Your task to perform on an android device: turn on improve location accuracy Image 0: 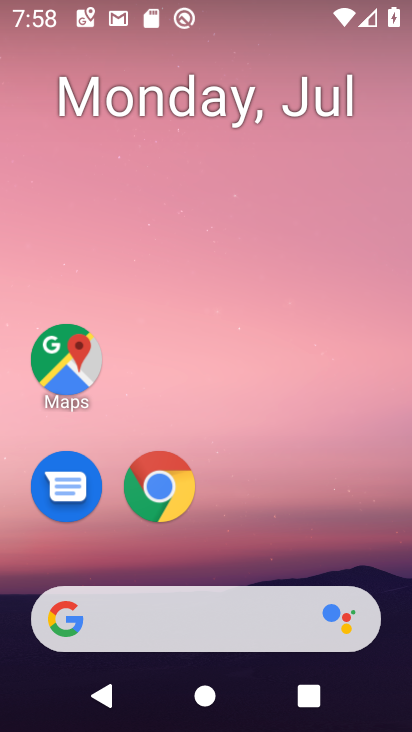
Step 0: drag from (358, 525) to (357, 106)
Your task to perform on an android device: turn on improve location accuracy Image 1: 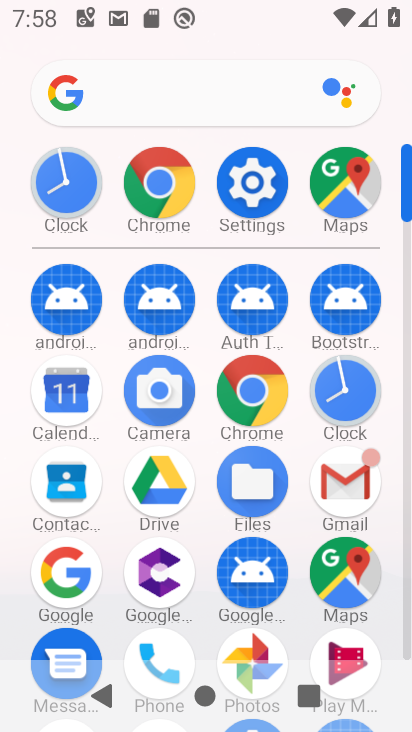
Step 1: click (261, 179)
Your task to perform on an android device: turn on improve location accuracy Image 2: 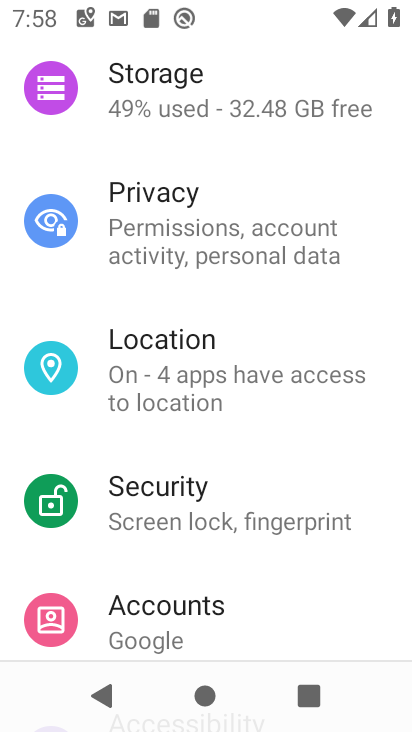
Step 2: click (293, 359)
Your task to perform on an android device: turn on improve location accuracy Image 3: 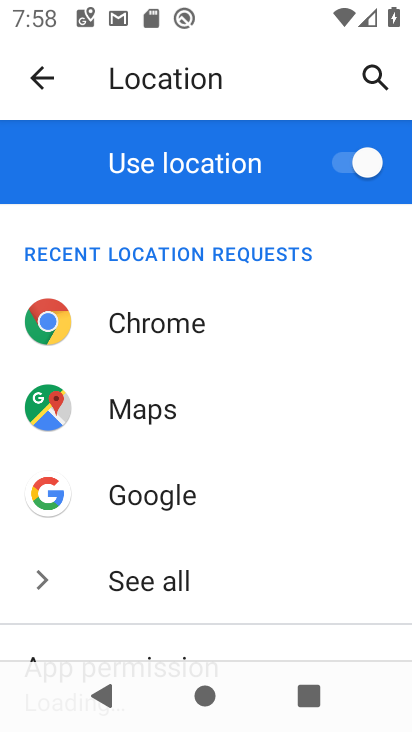
Step 3: drag from (326, 430) to (336, 334)
Your task to perform on an android device: turn on improve location accuracy Image 4: 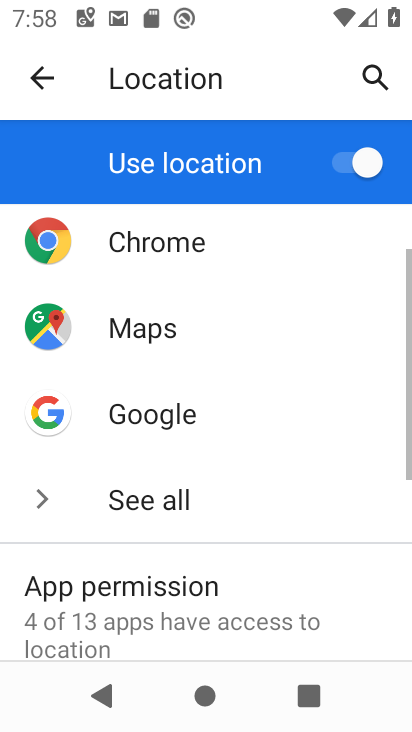
Step 4: drag from (362, 516) to (360, 423)
Your task to perform on an android device: turn on improve location accuracy Image 5: 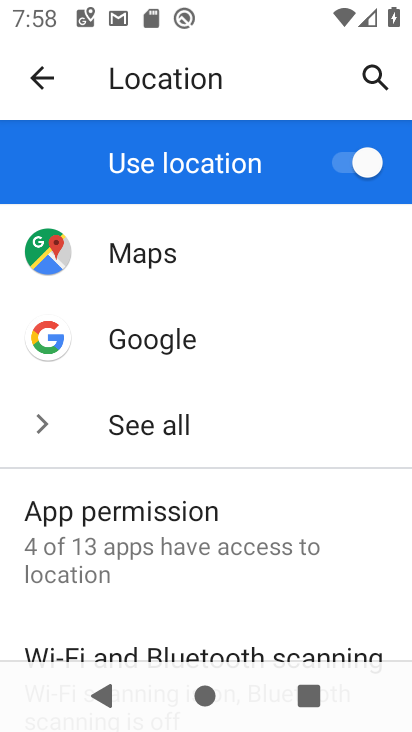
Step 5: drag from (367, 496) to (367, 347)
Your task to perform on an android device: turn on improve location accuracy Image 6: 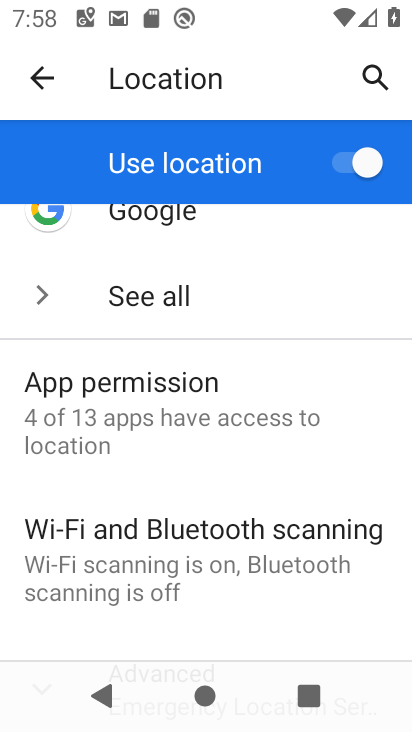
Step 6: drag from (368, 457) to (348, 309)
Your task to perform on an android device: turn on improve location accuracy Image 7: 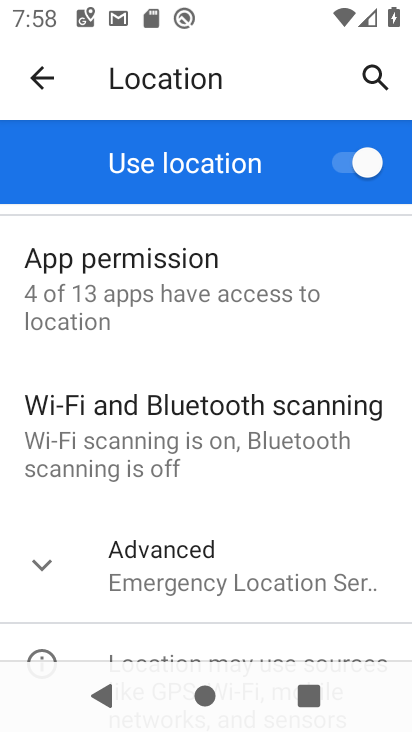
Step 7: drag from (358, 517) to (360, 388)
Your task to perform on an android device: turn on improve location accuracy Image 8: 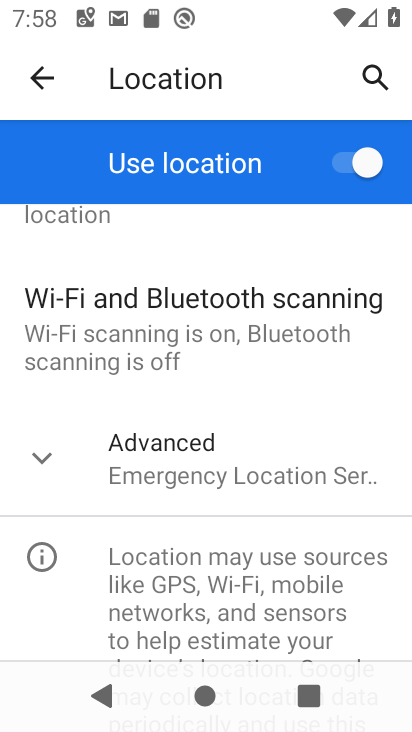
Step 8: click (349, 474)
Your task to perform on an android device: turn on improve location accuracy Image 9: 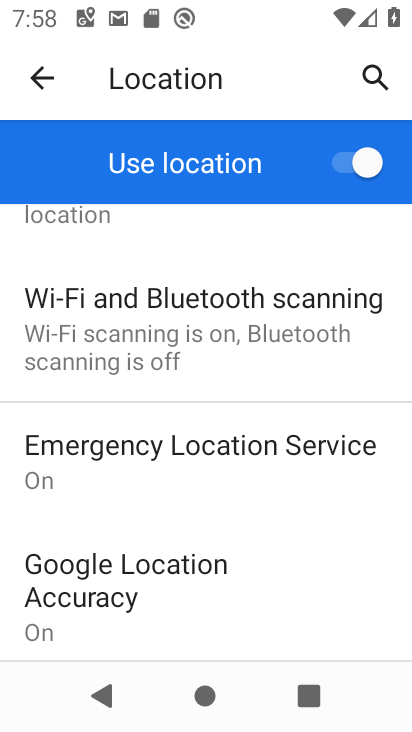
Step 9: drag from (338, 528) to (336, 449)
Your task to perform on an android device: turn on improve location accuracy Image 10: 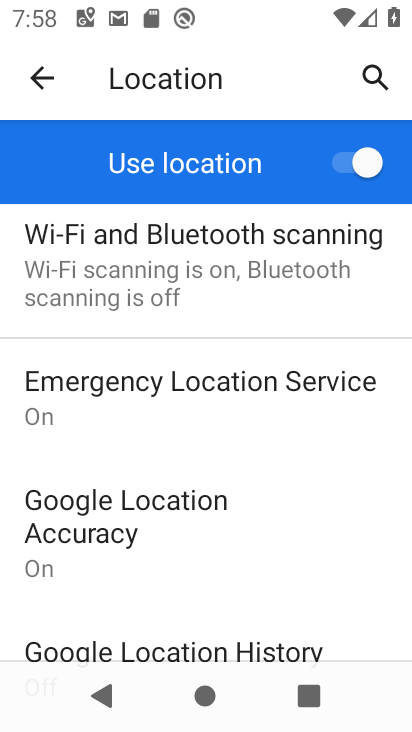
Step 10: click (259, 534)
Your task to perform on an android device: turn on improve location accuracy Image 11: 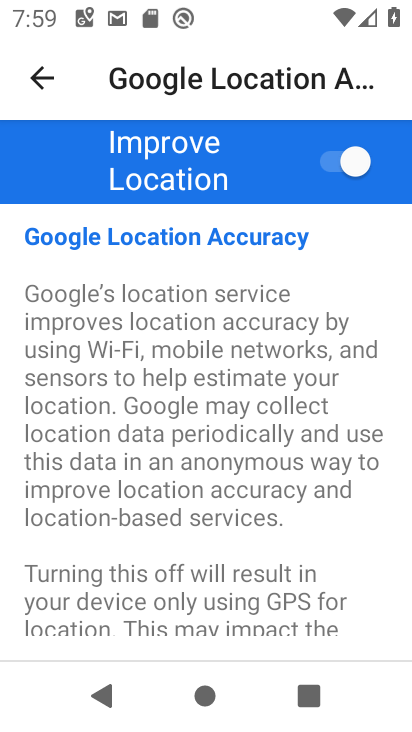
Step 11: task complete